Your task to perform on an android device: open a new tab in the chrome app Image 0: 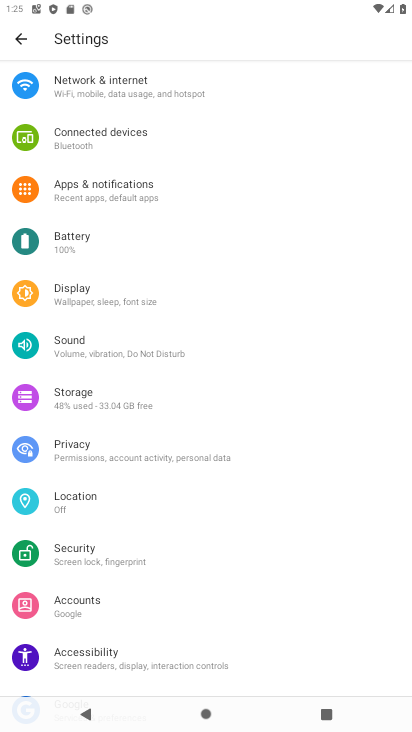
Step 0: press home button
Your task to perform on an android device: open a new tab in the chrome app Image 1: 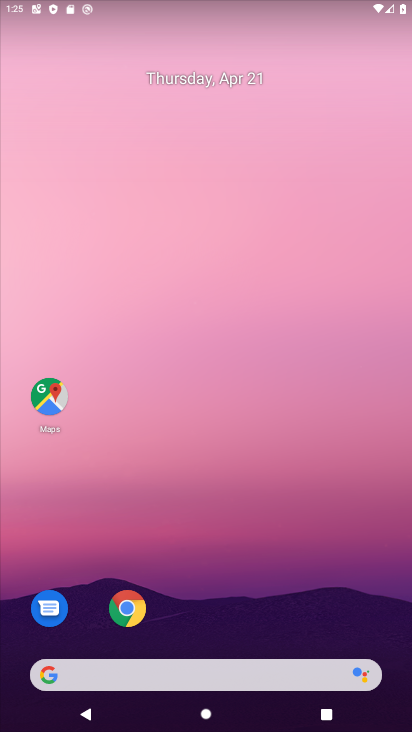
Step 1: drag from (271, 357) to (330, 86)
Your task to perform on an android device: open a new tab in the chrome app Image 2: 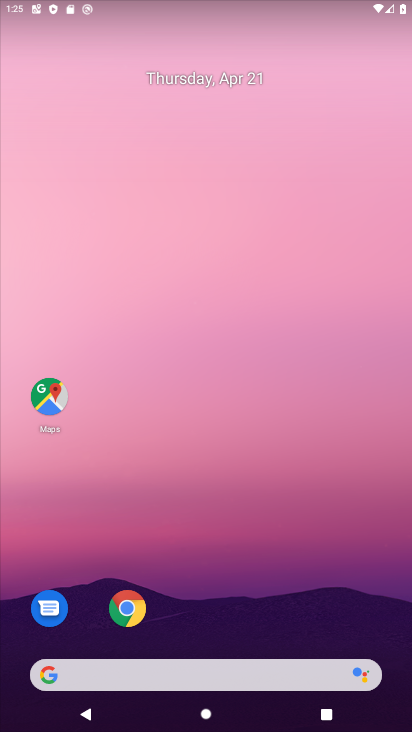
Step 2: drag from (281, 537) to (277, 89)
Your task to perform on an android device: open a new tab in the chrome app Image 3: 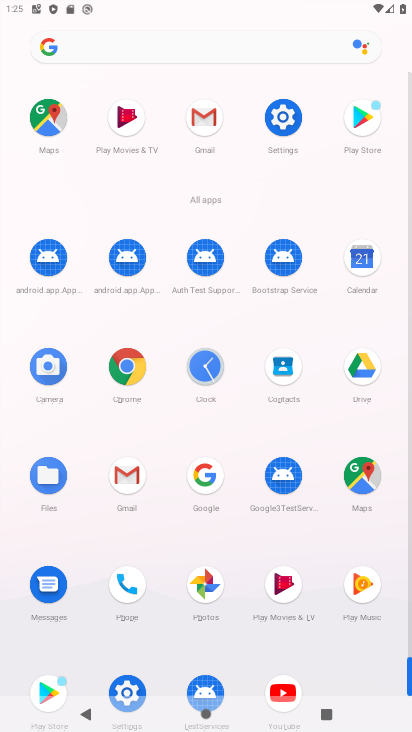
Step 3: click (136, 376)
Your task to perform on an android device: open a new tab in the chrome app Image 4: 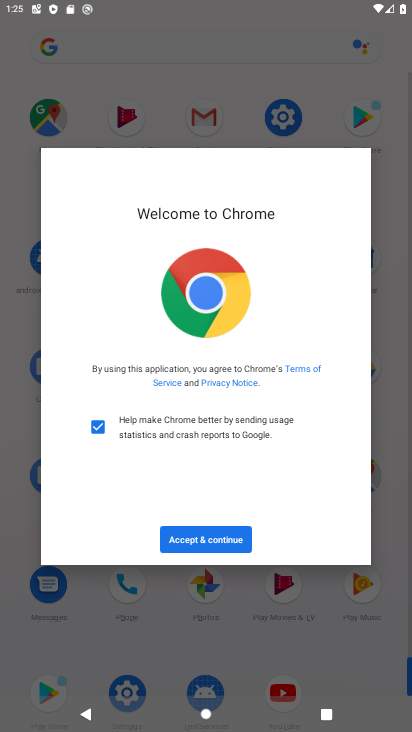
Step 4: click (198, 535)
Your task to perform on an android device: open a new tab in the chrome app Image 5: 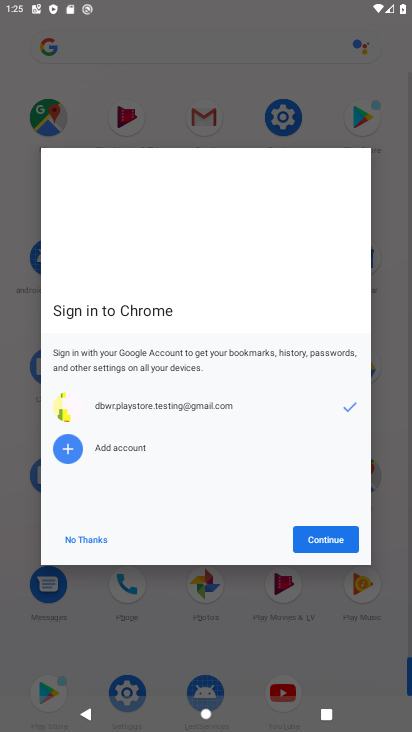
Step 5: click (113, 539)
Your task to perform on an android device: open a new tab in the chrome app Image 6: 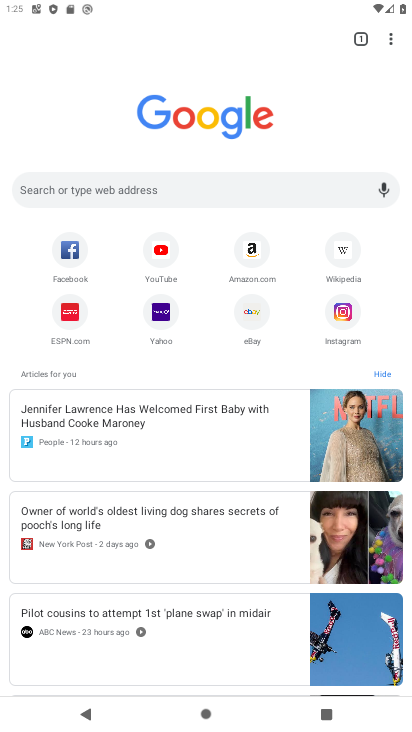
Step 6: task complete